Your task to perform on an android device: change the clock display to digital Image 0: 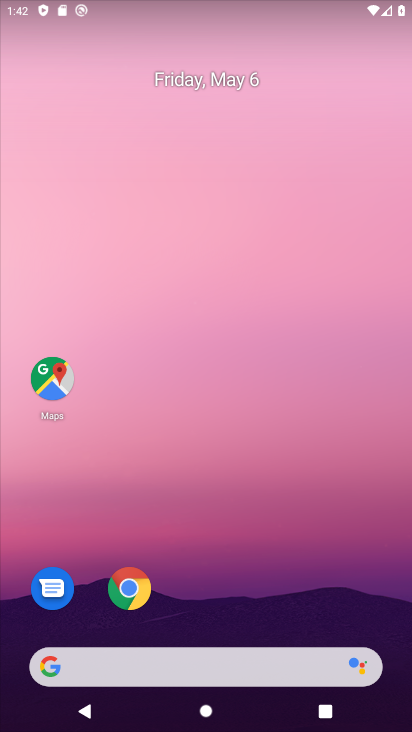
Step 0: click (291, 46)
Your task to perform on an android device: change the clock display to digital Image 1: 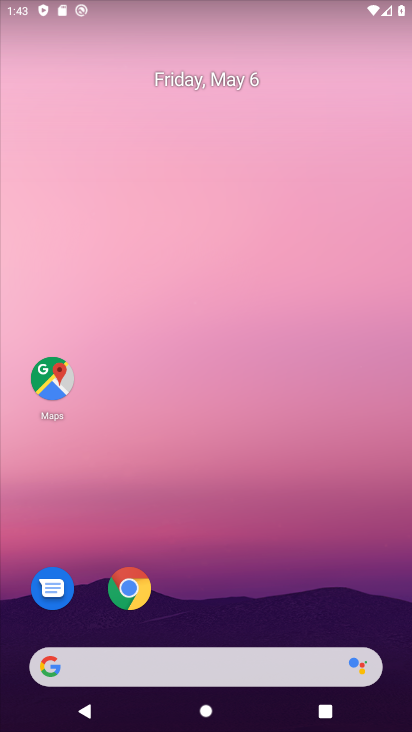
Step 1: drag from (198, 608) to (397, 18)
Your task to perform on an android device: change the clock display to digital Image 2: 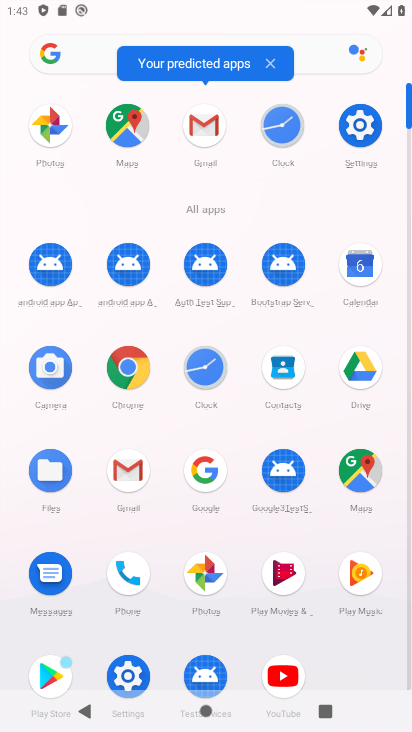
Step 2: click (278, 150)
Your task to perform on an android device: change the clock display to digital Image 3: 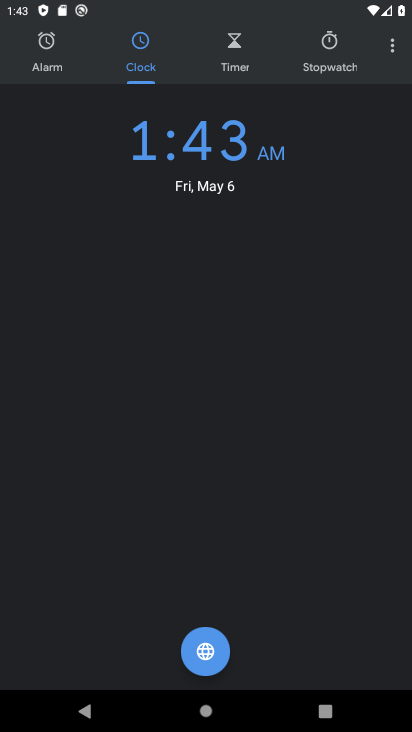
Step 3: click (367, 51)
Your task to perform on an android device: change the clock display to digital Image 4: 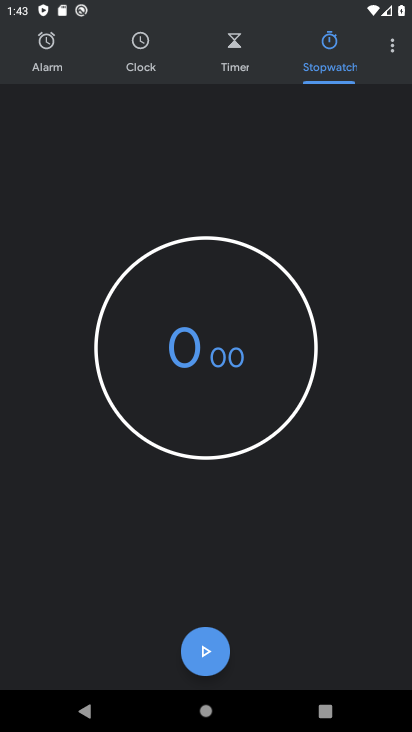
Step 4: click (376, 48)
Your task to perform on an android device: change the clock display to digital Image 5: 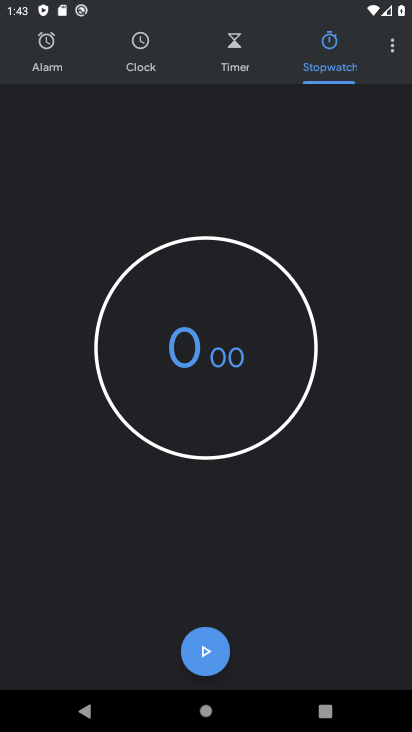
Step 5: click (384, 54)
Your task to perform on an android device: change the clock display to digital Image 6: 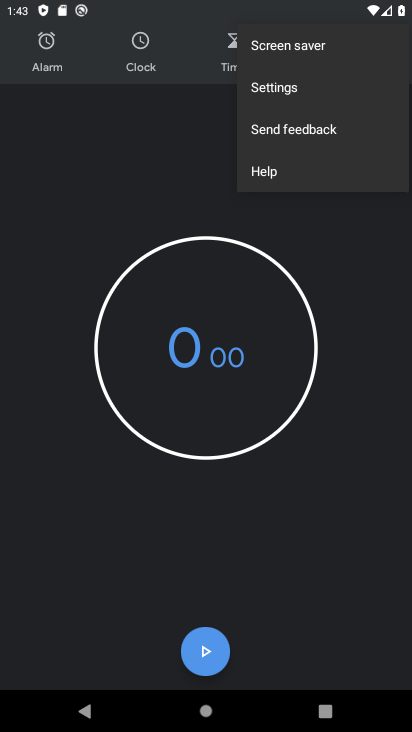
Step 6: click (333, 93)
Your task to perform on an android device: change the clock display to digital Image 7: 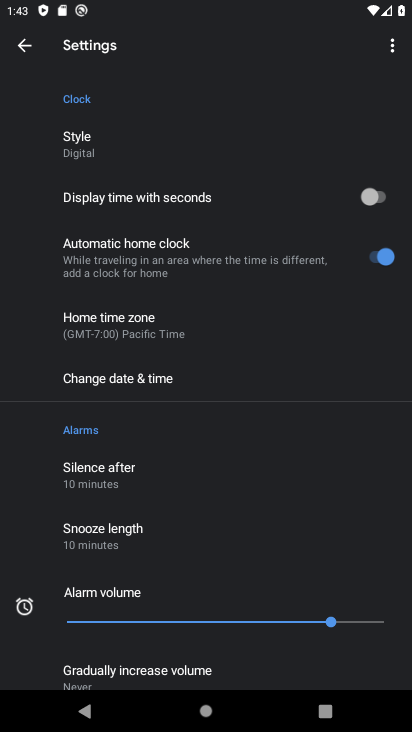
Step 7: task complete